Your task to perform on an android device: Go to Maps Image 0: 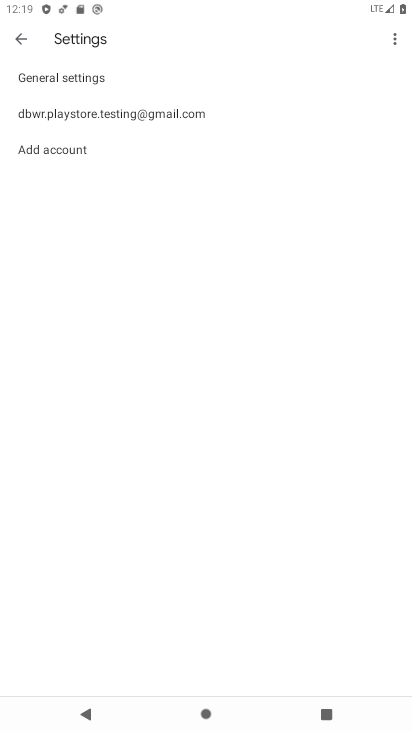
Step 0: press home button
Your task to perform on an android device: Go to Maps Image 1: 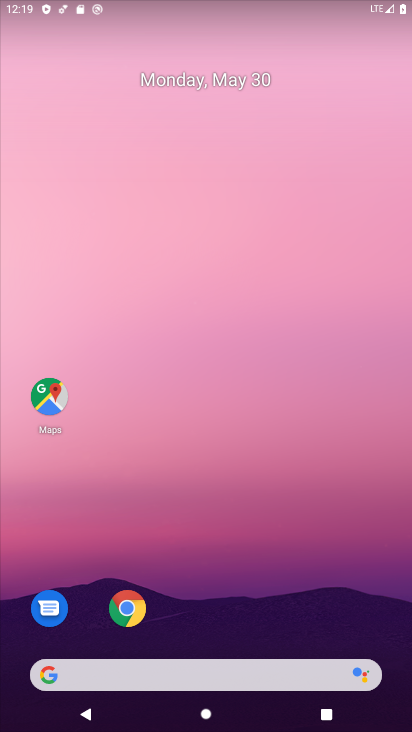
Step 1: click (52, 412)
Your task to perform on an android device: Go to Maps Image 2: 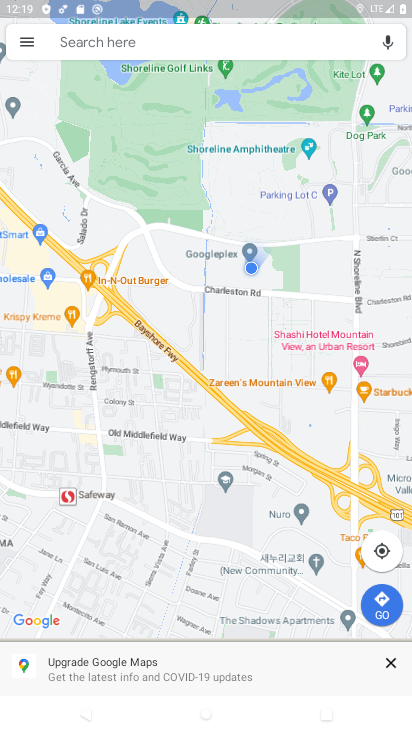
Step 2: task complete